Your task to perform on an android device: Open the stopwatch Image 0: 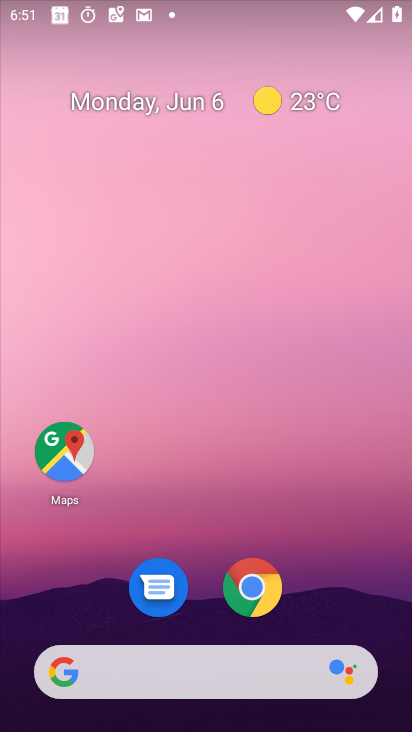
Step 0: drag from (389, 625) to (296, 40)
Your task to perform on an android device: Open the stopwatch Image 1: 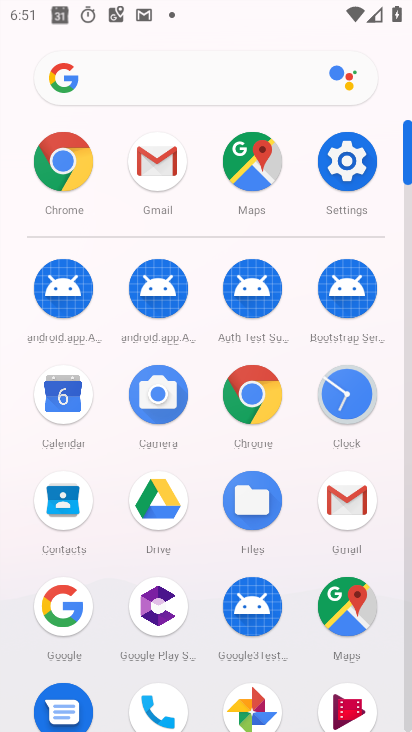
Step 1: click (344, 392)
Your task to perform on an android device: Open the stopwatch Image 2: 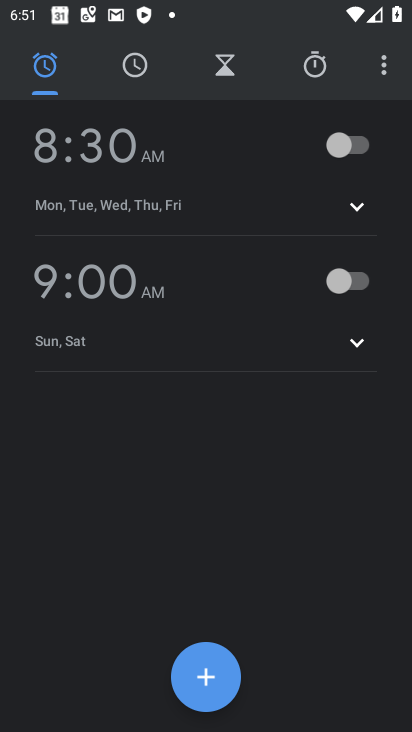
Step 2: click (314, 66)
Your task to perform on an android device: Open the stopwatch Image 3: 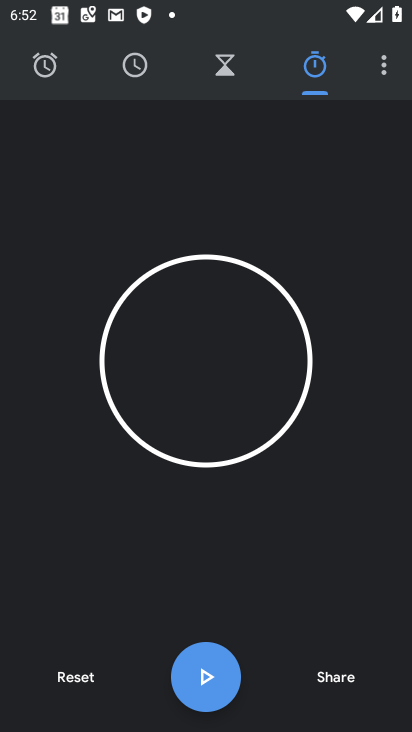
Step 3: task complete